Your task to perform on an android device: read, delete, or share a saved page in the chrome app Image 0: 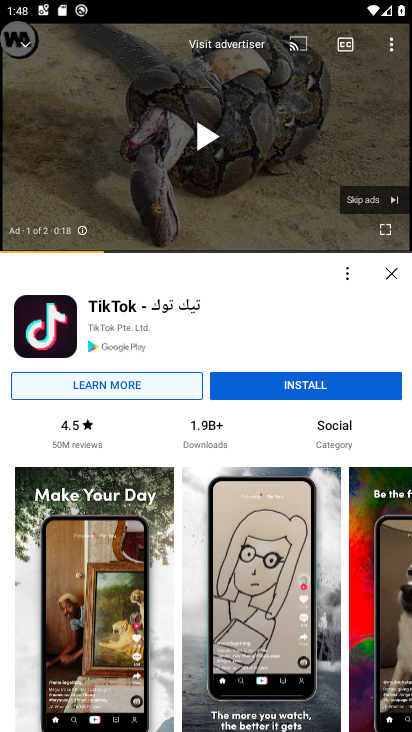
Step 0: press home button
Your task to perform on an android device: read, delete, or share a saved page in the chrome app Image 1: 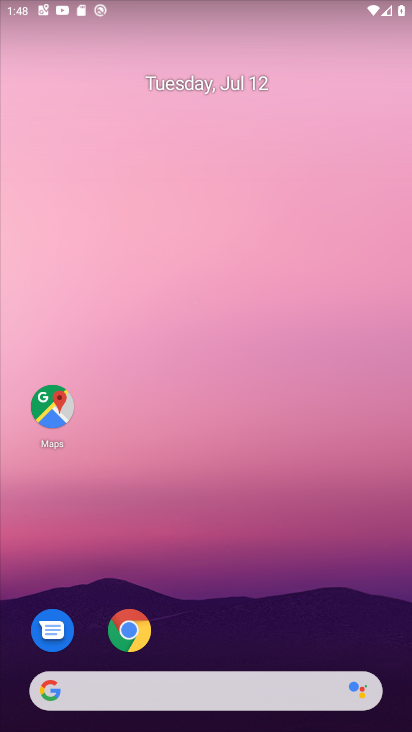
Step 1: drag from (222, 540) to (297, 98)
Your task to perform on an android device: read, delete, or share a saved page in the chrome app Image 2: 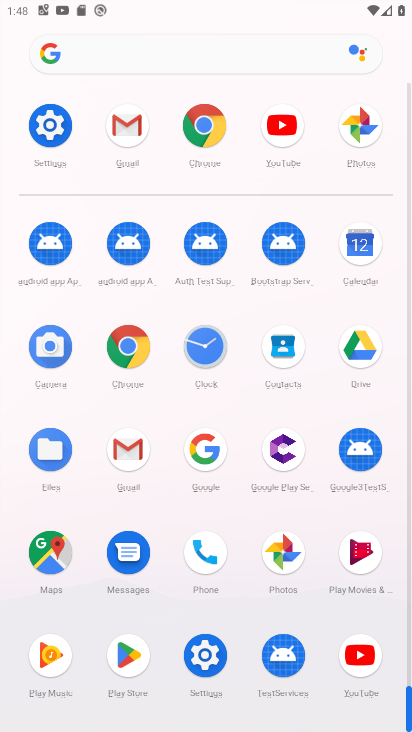
Step 2: click (211, 141)
Your task to perform on an android device: read, delete, or share a saved page in the chrome app Image 3: 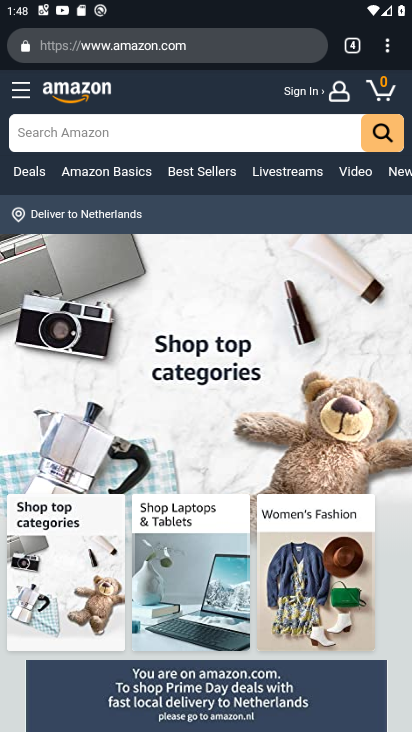
Step 3: click (387, 50)
Your task to perform on an android device: read, delete, or share a saved page in the chrome app Image 4: 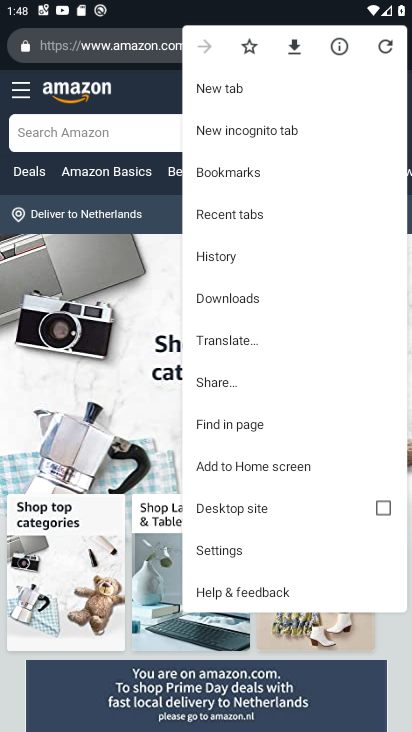
Step 4: click (243, 296)
Your task to perform on an android device: read, delete, or share a saved page in the chrome app Image 5: 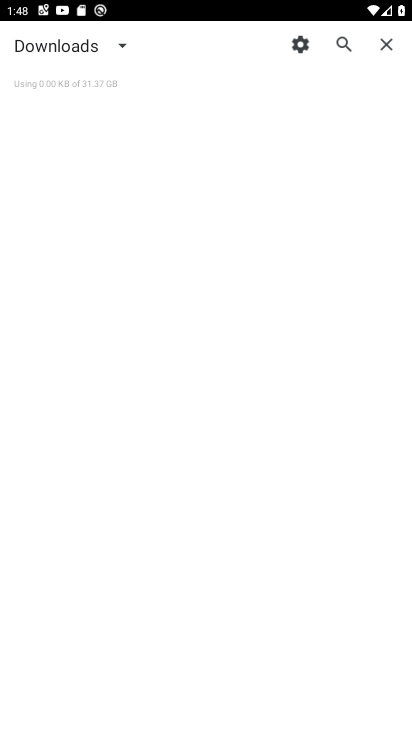
Step 5: click (94, 43)
Your task to perform on an android device: read, delete, or share a saved page in the chrome app Image 6: 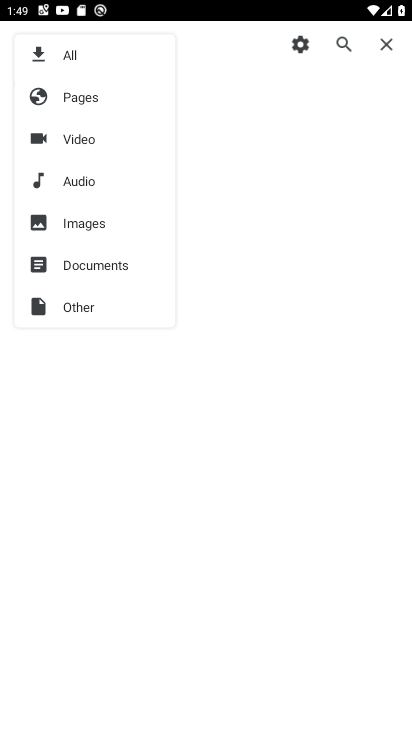
Step 6: click (84, 215)
Your task to perform on an android device: read, delete, or share a saved page in the chrome app Image 7: 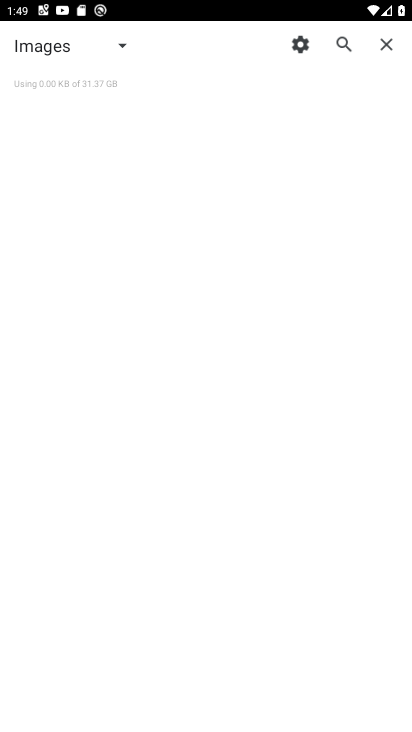
Step 7: click (98, 52)
Your task to perform on an android device: read, delete, or share a saved page in the chrome app Image 8: 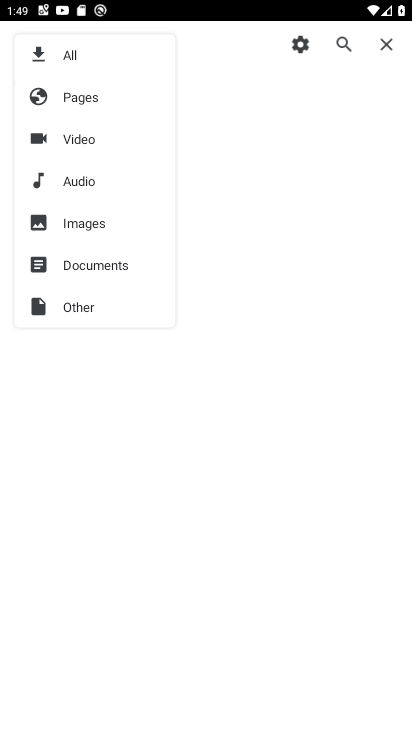
Step 8: click (94, 96)
Your task to perform on an android device: read, delete, or share a saved page in the chrome app Image 9: 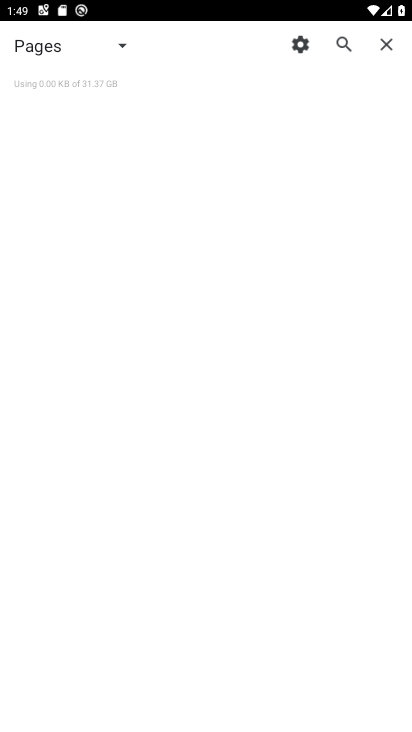
Step 9: task complete